Your task to perform on an android device: open sync settings in chrome Image 0: 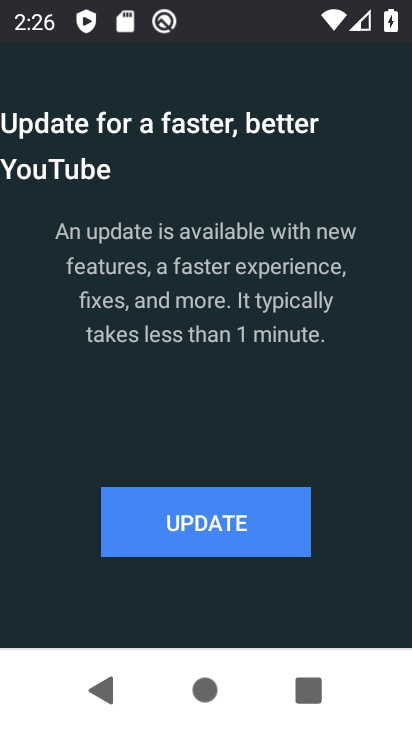
Step 0: press home button
Your task to perform on an android device: open sync settings in chrome Image 1: 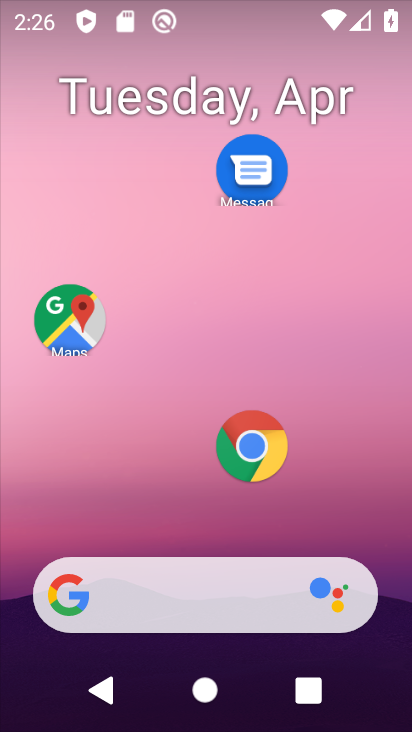
Step 1: drag from (175, 538) to (190, 102)
Your task to perform on an android device: open sync settings in chrome Image 2: 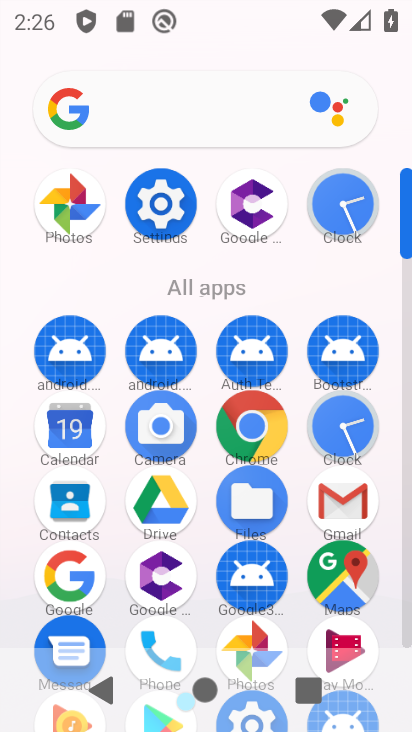
Step 2: click (243, 430)
Your task to perform on an android device: open sync settings in chrome Image 3: 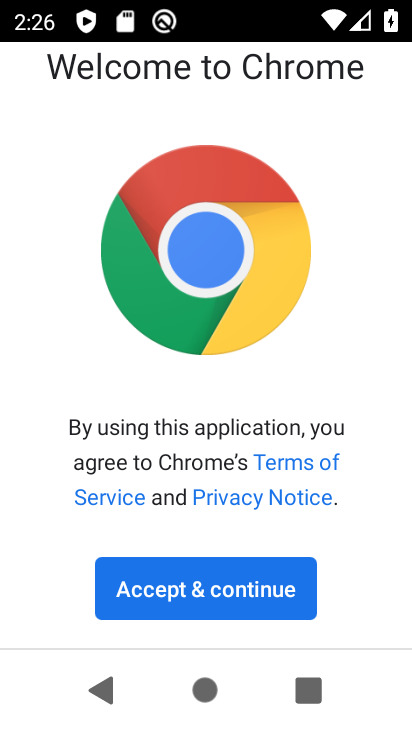
Step 3: click (218, 584)
Your task to perform on an android device: open sync settings in chrome Image 4: 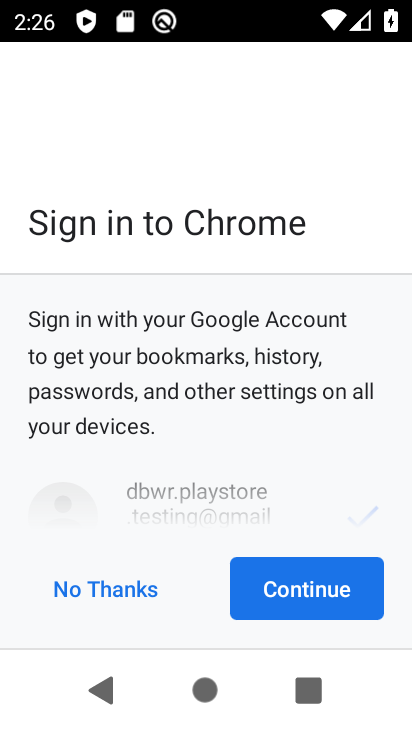
Step 4: click (268, 596)
Your task to perform on an android device: open sync settings in chrome Image 5: 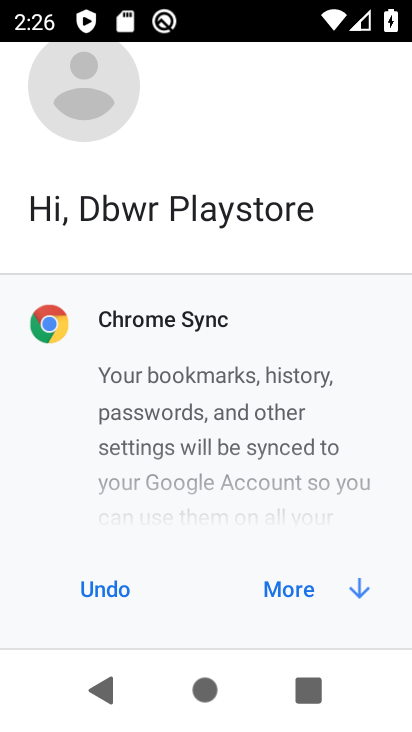
Step 5: click (279, 596)
Your task to perform on an android device: open sync settings in chrome Image 6: 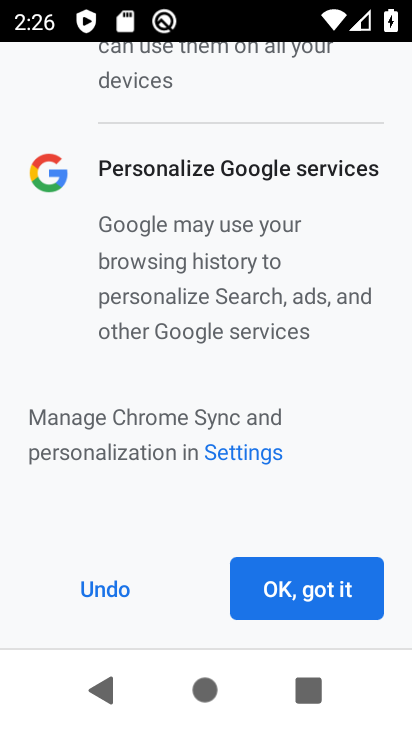
Step 6: click (279, 596)
Your task to perform on an android device: open sync settings in chrome Image 7: 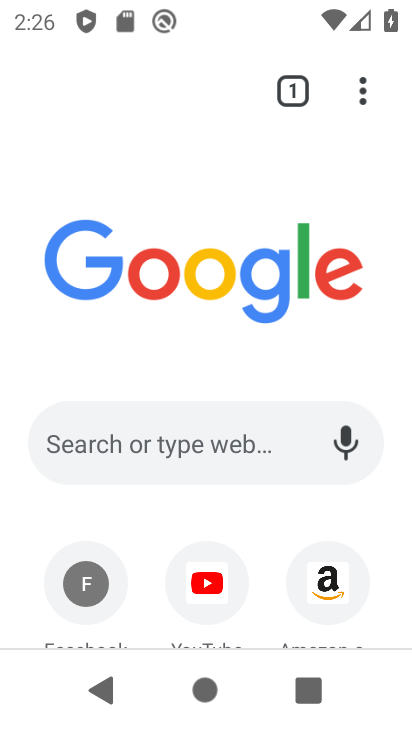
Step 7: click (363, 88)
Your task to perform on an android device: open sync settings in chrome Image 8: 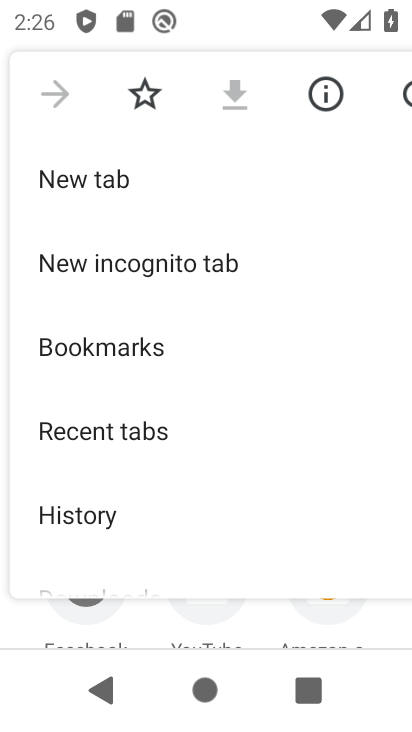
Step 8: drag from (125, 545) to (180, 198)
Your task to perform on an android device: open sync settings in chrome Image 9: 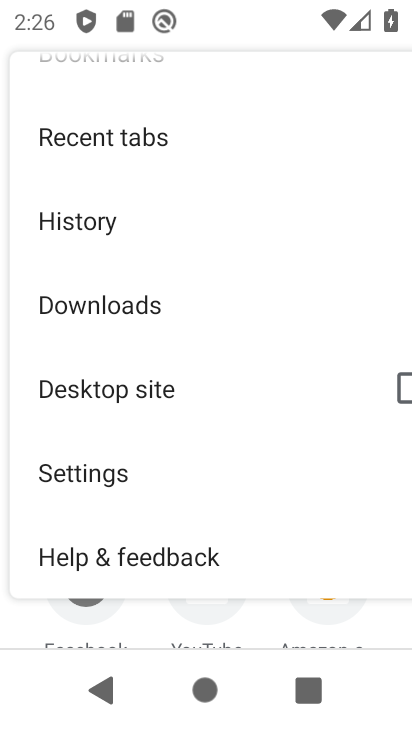
Step 9: click (125, 464)
Your task to perform on an android device: open sync settings in chrome Image 10: 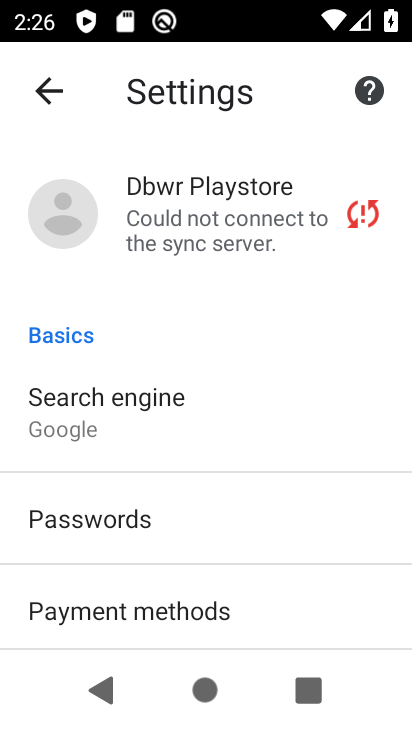
Step 10: drag from (164, 592) to (210, 230)
Your task to perform on an android device: open sync settings in chrome Image 11: 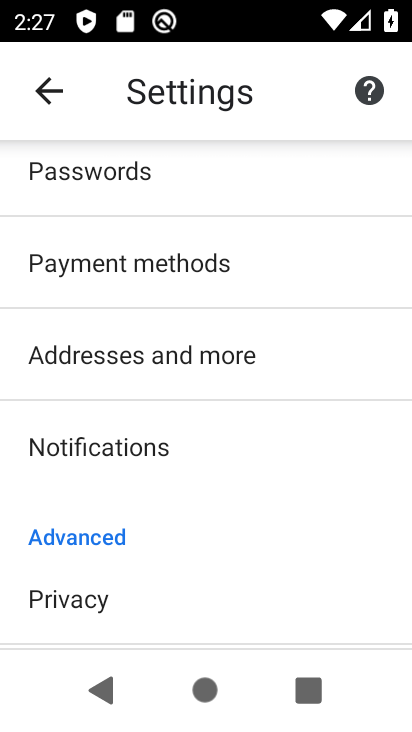
Step 11: drag from (149, 546) to (215, 274)
Your task to perform on an android device: open sync settings in chrome Image 12: 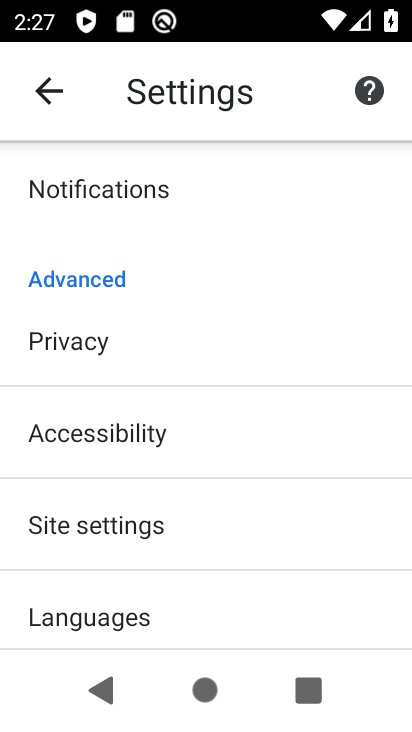
Step 12: drag from (174, 582) to (244, 310)
Your task to perform on an android device: open sync settings in chrome Image 13: 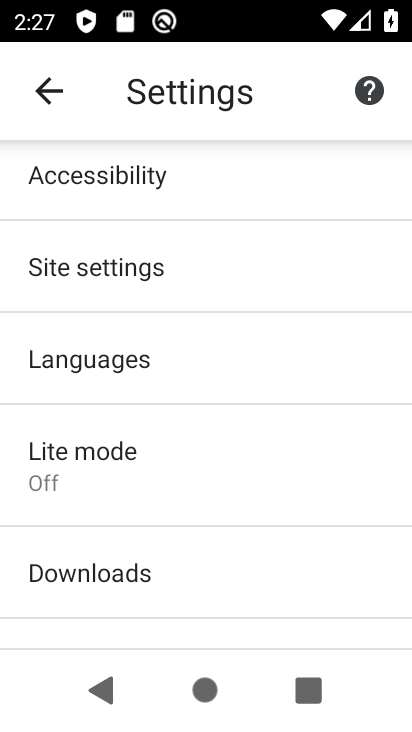
Step 13: drag from (178, 590) to (190, 524)
Your task to perform on an android device: open sync settings in chrome Image 14: 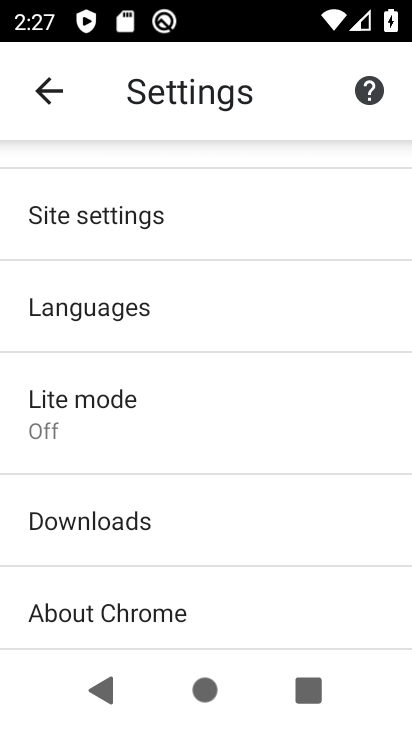
Step 14: click (165, 216)
Your task to perform on an android device: open sync settings in chrome Image 15: 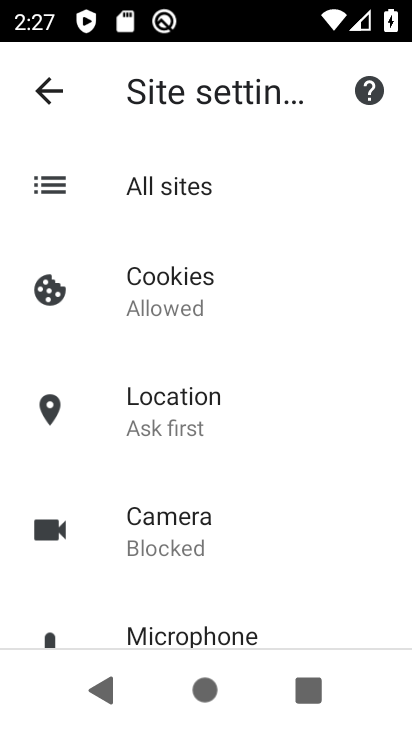
Step 15: drag from (238, 604) to (278, 303)
Your task to perform on an android device: open sync settings in chrome Image 16: 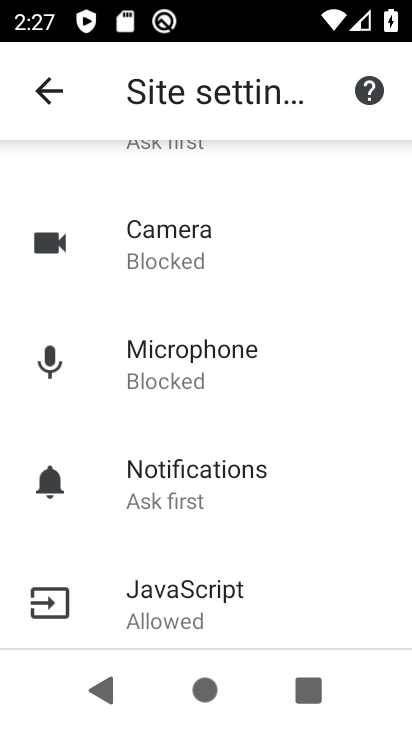
Step 16: drag from (190, 576) to (226, 332)
Your task to perform on an android device: open sync settings in chrome Image 17: 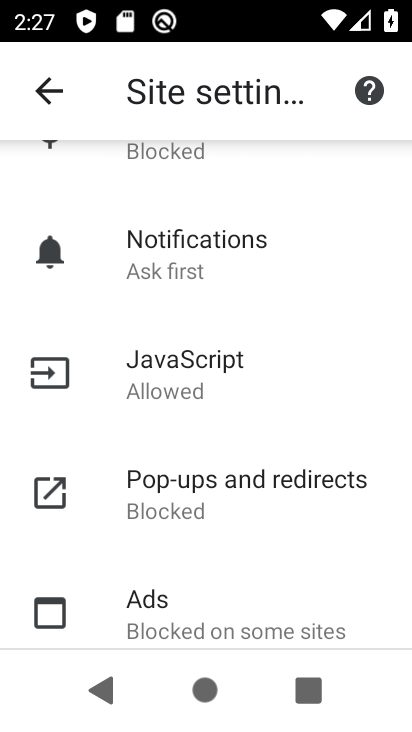
Step 17: drag from (189, 559) to (238, 281)
Your task to perform on an android device: open sync settings in chrome Image 18: 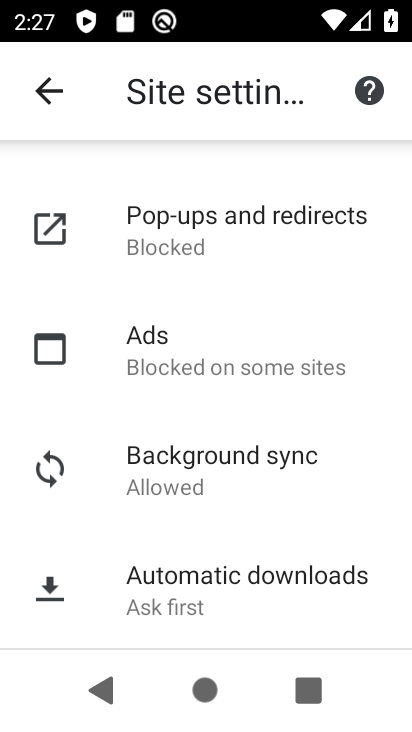
Step 18: click (201, 463)
Your task to perform on an android device: open sync settings in chrome Image 19: 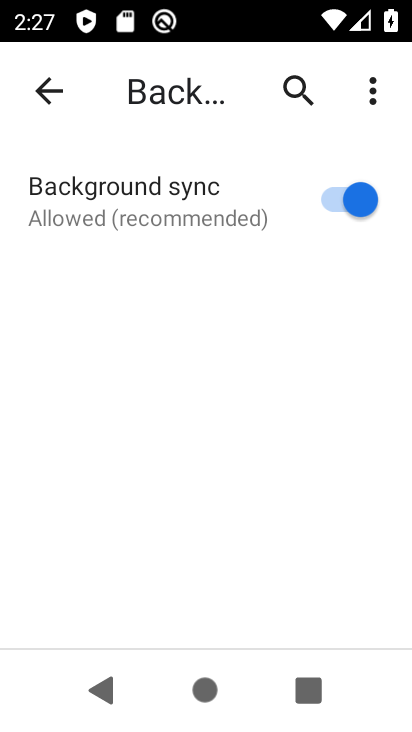
Step 19: task complete